Your task to perform on an android device: Open the calendar app, open the side menu, and click the "Day" option Image 0: 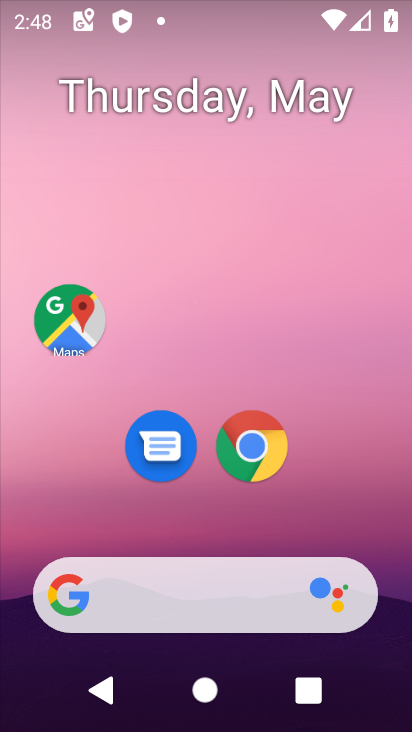
Step 0: drag from (288, 519) to (311, 55)
Your task to perform on an android device: Open the calendar app, open the side menu, and click the "Day" option Image 1: 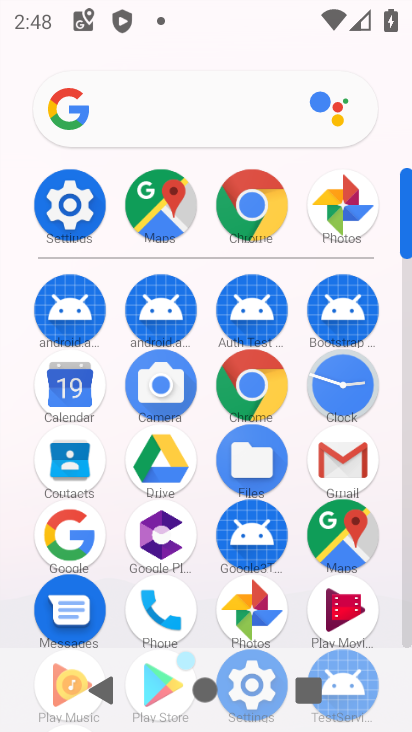
Step 1: click (62, 389)
Your task to perform on an android device: Open the calendar app, open the side menu, and click the "Day" option Image 2: 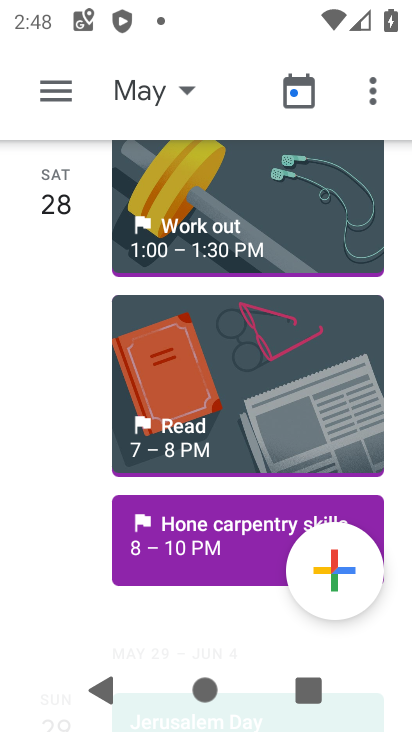
Step 2: click (45, 88)
Your task to perform on an android device: Open the calendar app, open the side menu, and click the "Day" option Image 3: 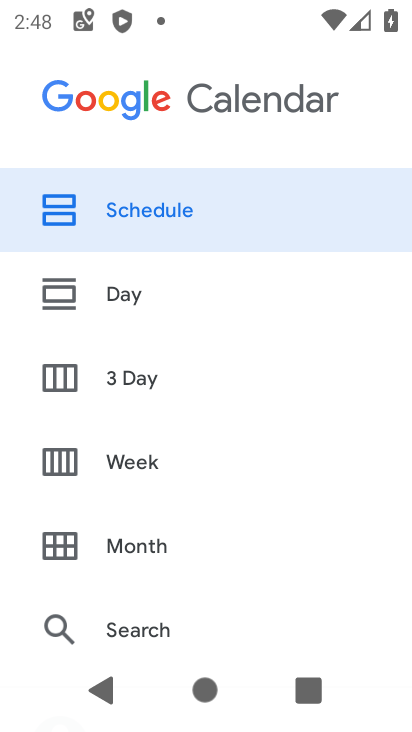
Step 3: click (143, 303)
Your task to perform on an android device: Open the calendar app, open the side menu, and click the "Day" option Image 4: 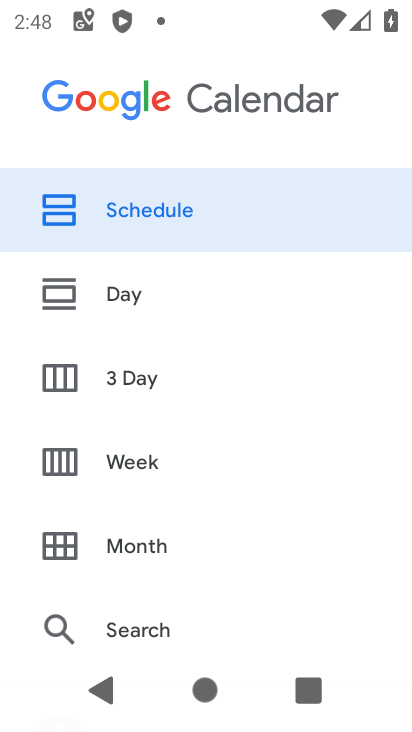
Step 4: click (109, 295)
Your task to perform on an android device: Open the calendar app, open the side menu, and click the "Day" option Image 5: 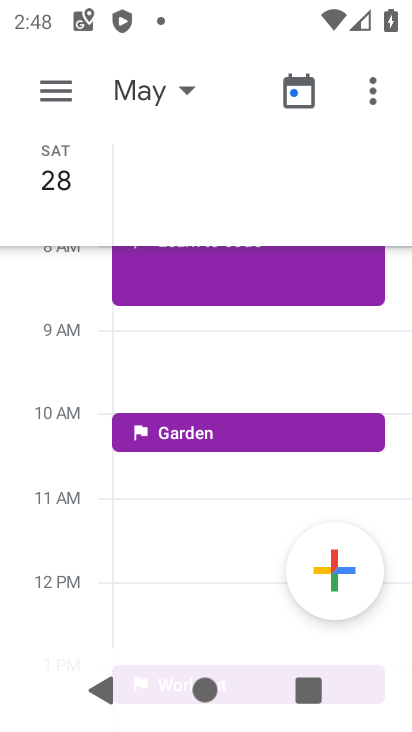
Step 5: task complete